Your task to perform on an android device: Add razer nari to the cart on costco.com Image 0: 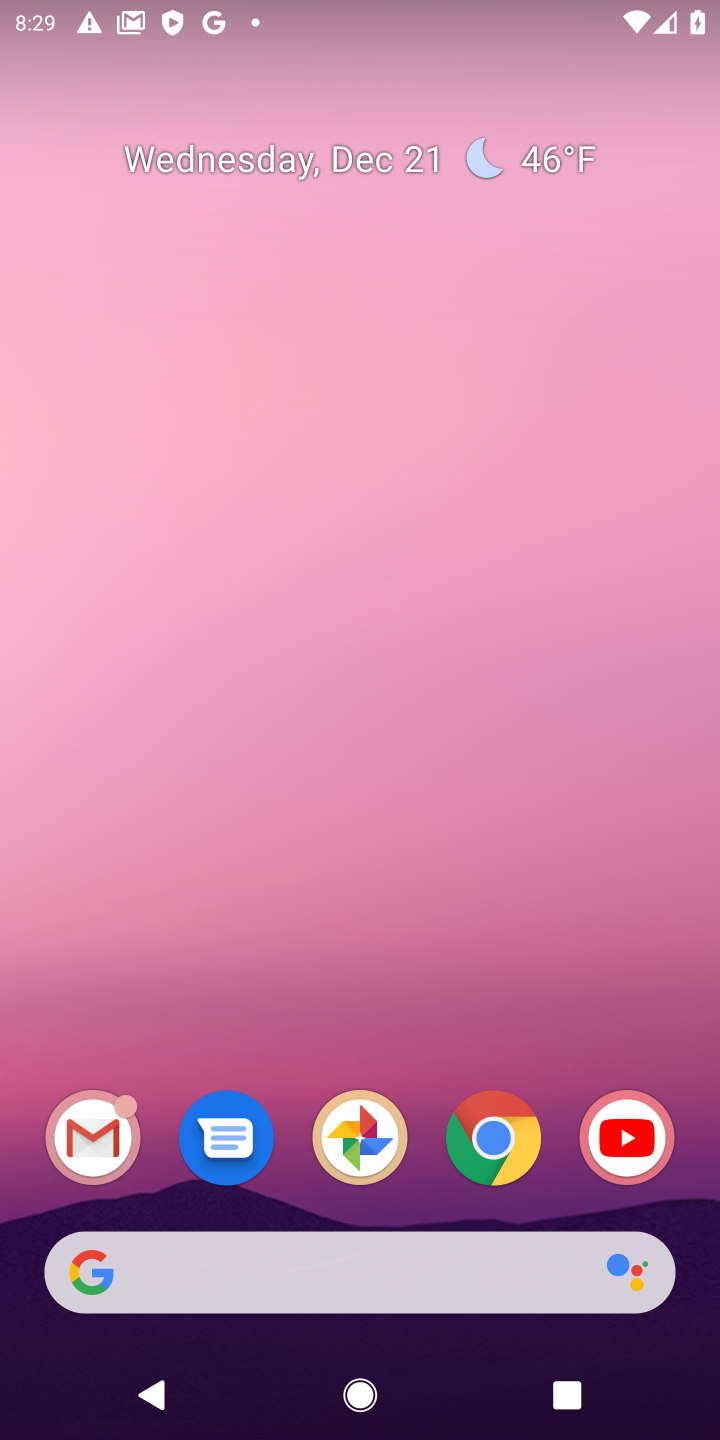
Step 0: click (492, 1138)
Your task to perform on an android device: Add razer nari to the cart on costco.com Image 1: 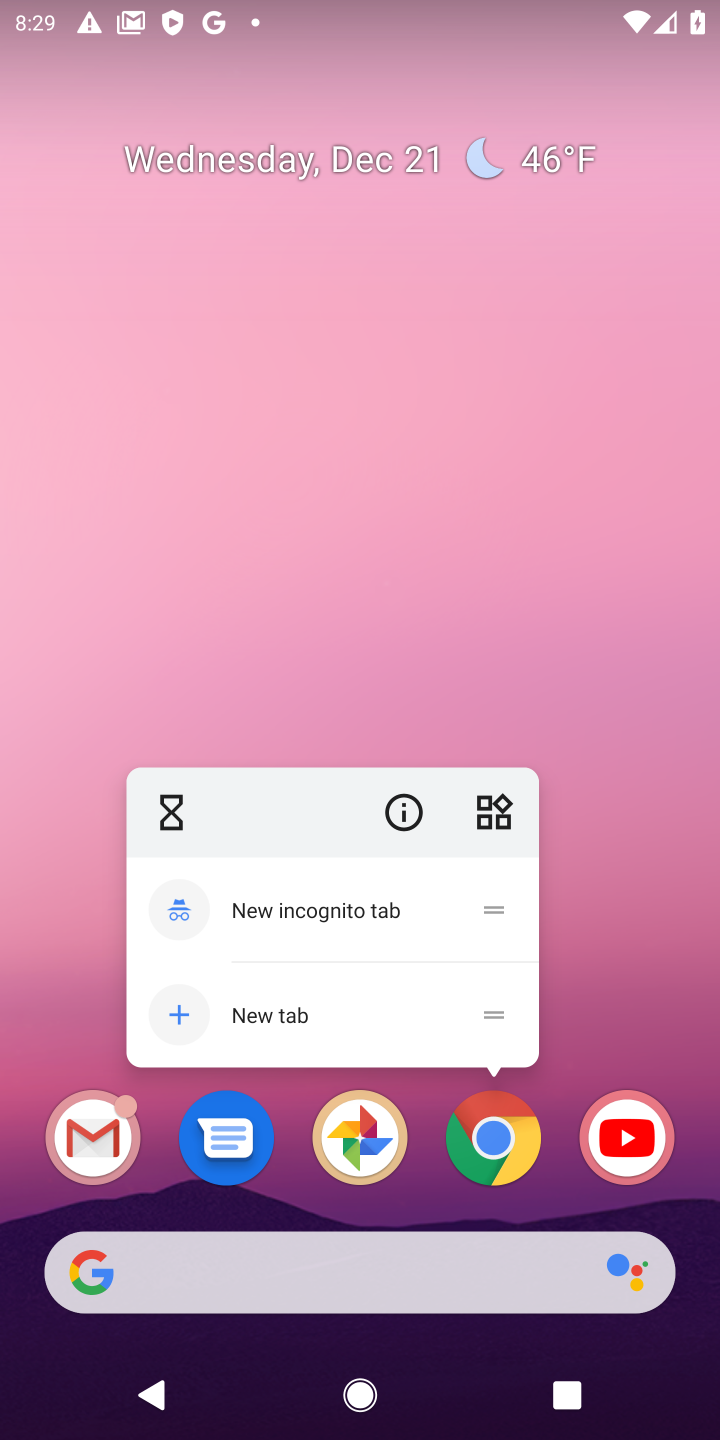
Step 1: click (492, 1138)
Your task to perform on an android device: Add razer nari to the cart on costco.com Image 2: 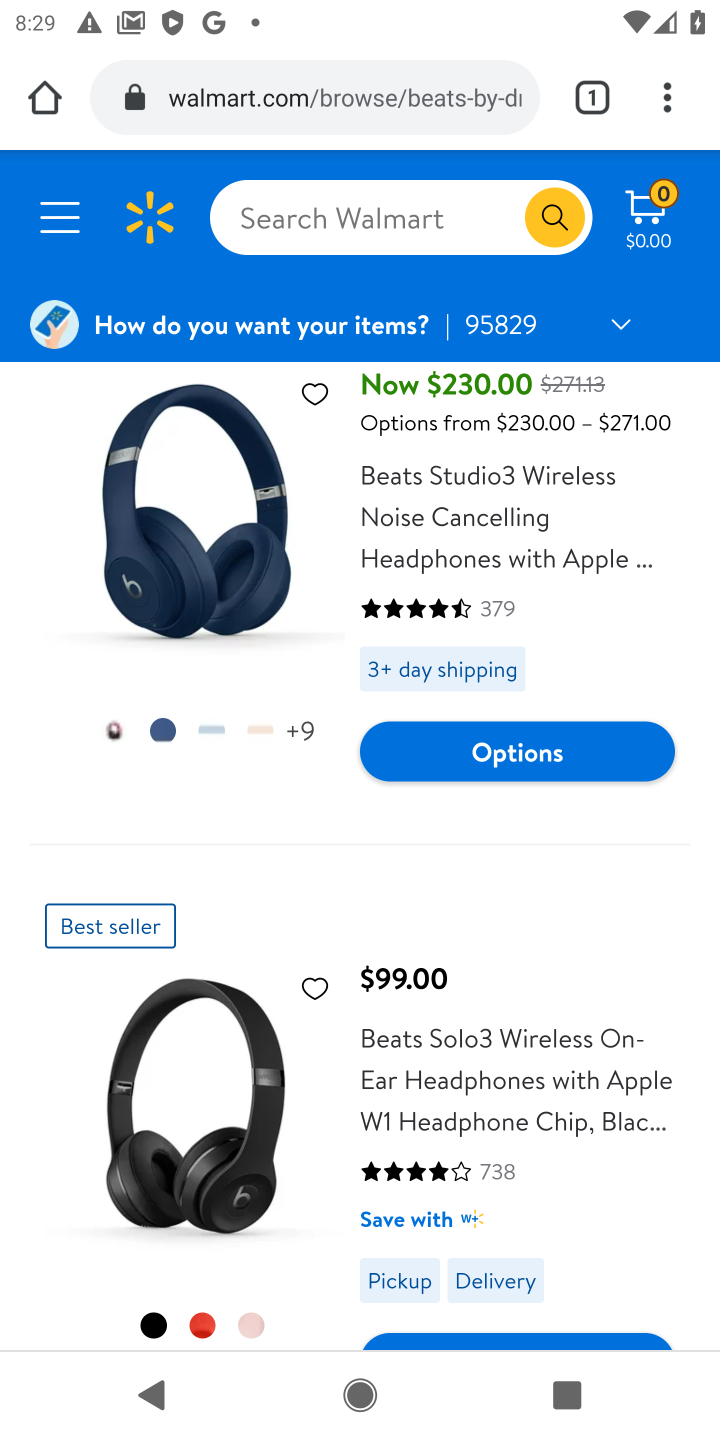
Step 2: click (290, 97)
Your task to perform on an android device: Add razer nari to the cart on costco.com Image 3: 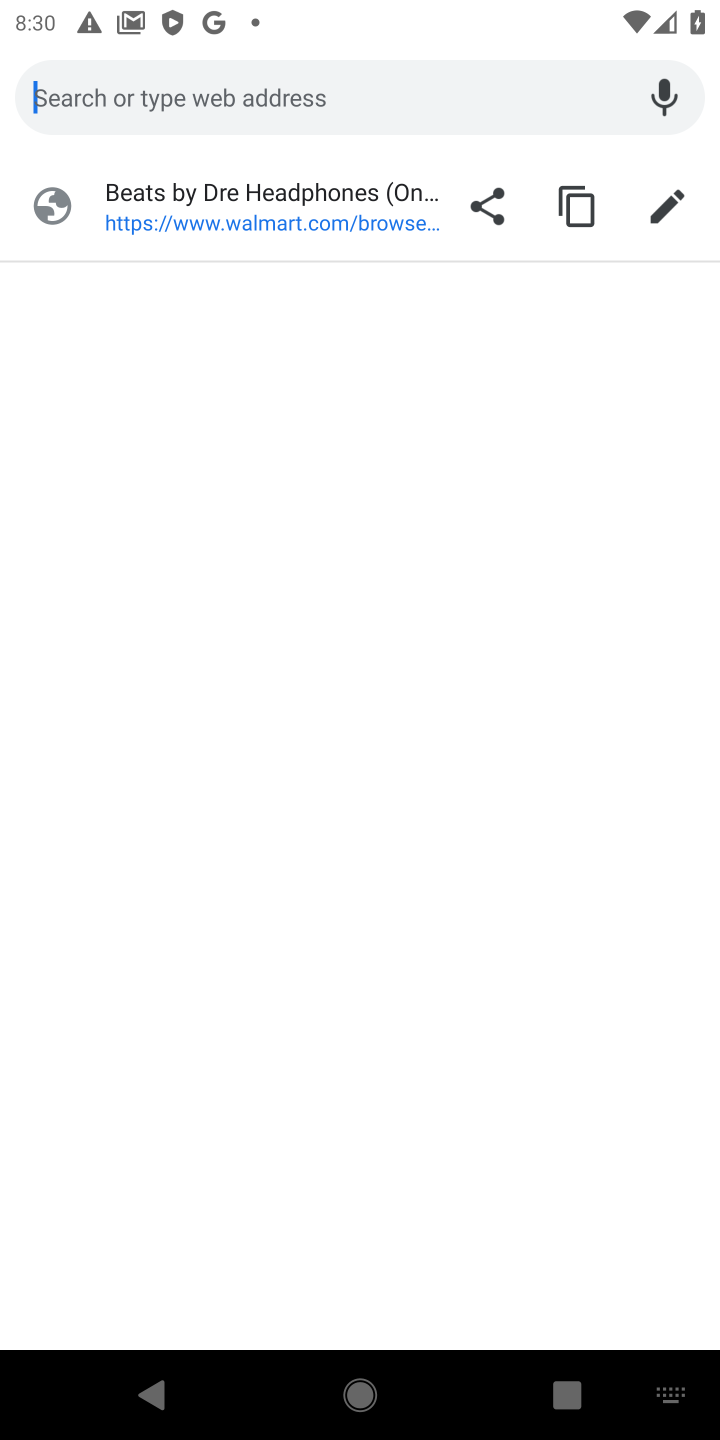
Step 3: type "costco.com"
Your task to perform on an android device: Add razer nari to the cart on costco.com Image 4: 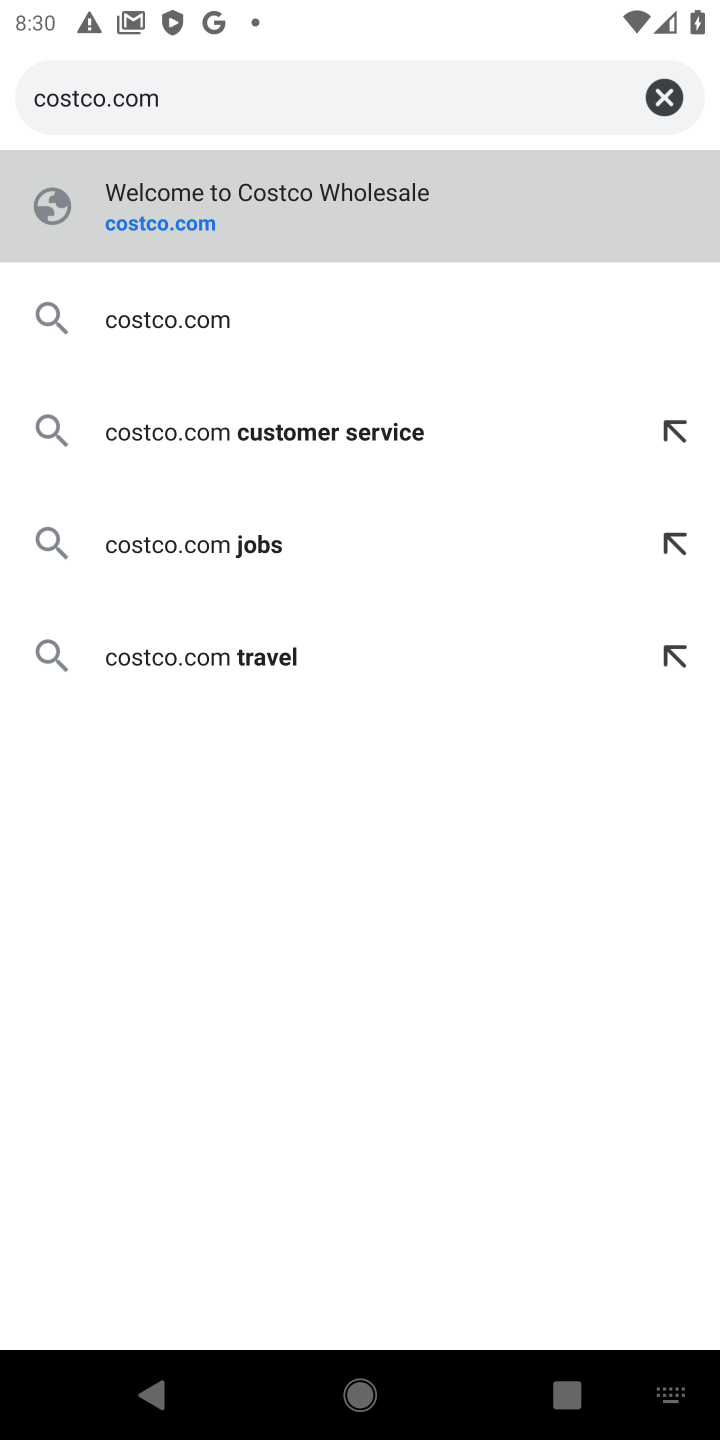
Step 4: click (146, 227)
Your task to perform on an android device: Add razer nari to the cart on costco.com Image 5: 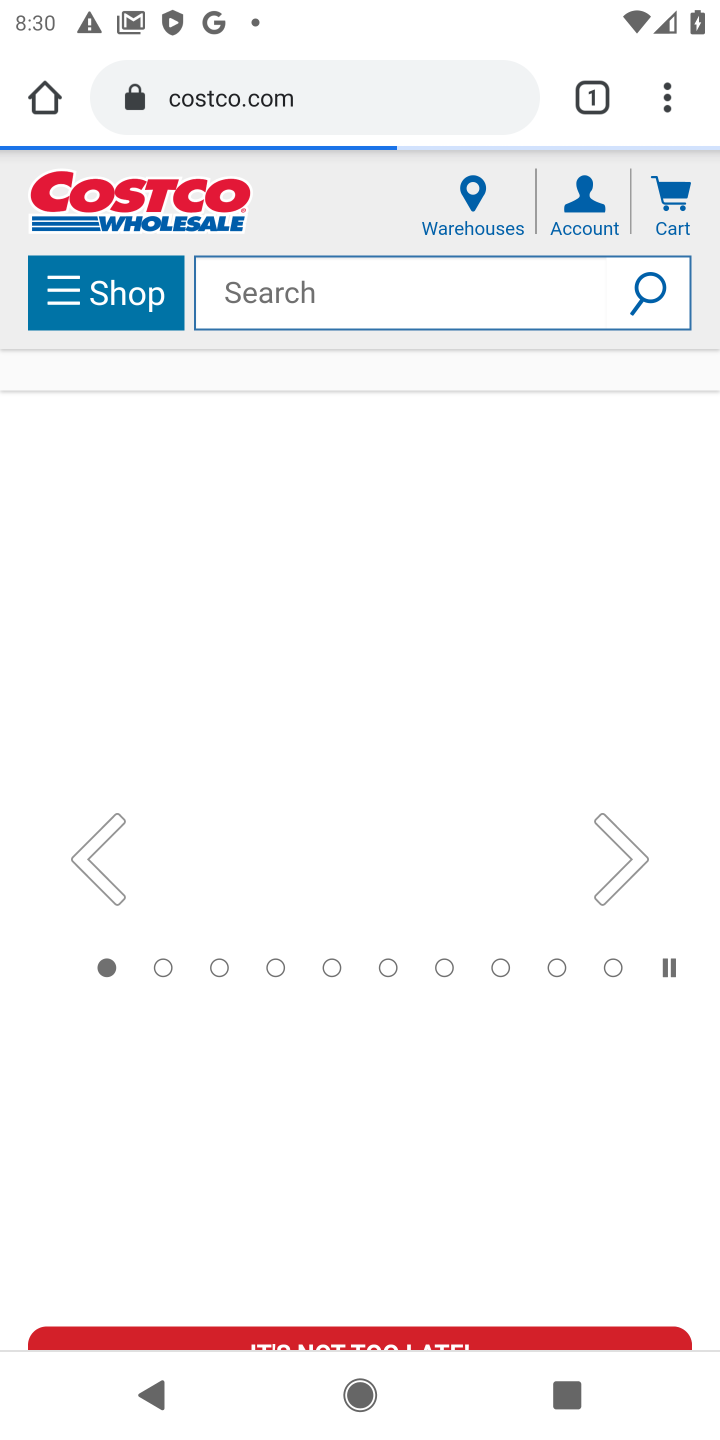
Step 5: click (285, 297)
Your task to perform on an android device: Add razer nari to the cart on costco.com Image 6: 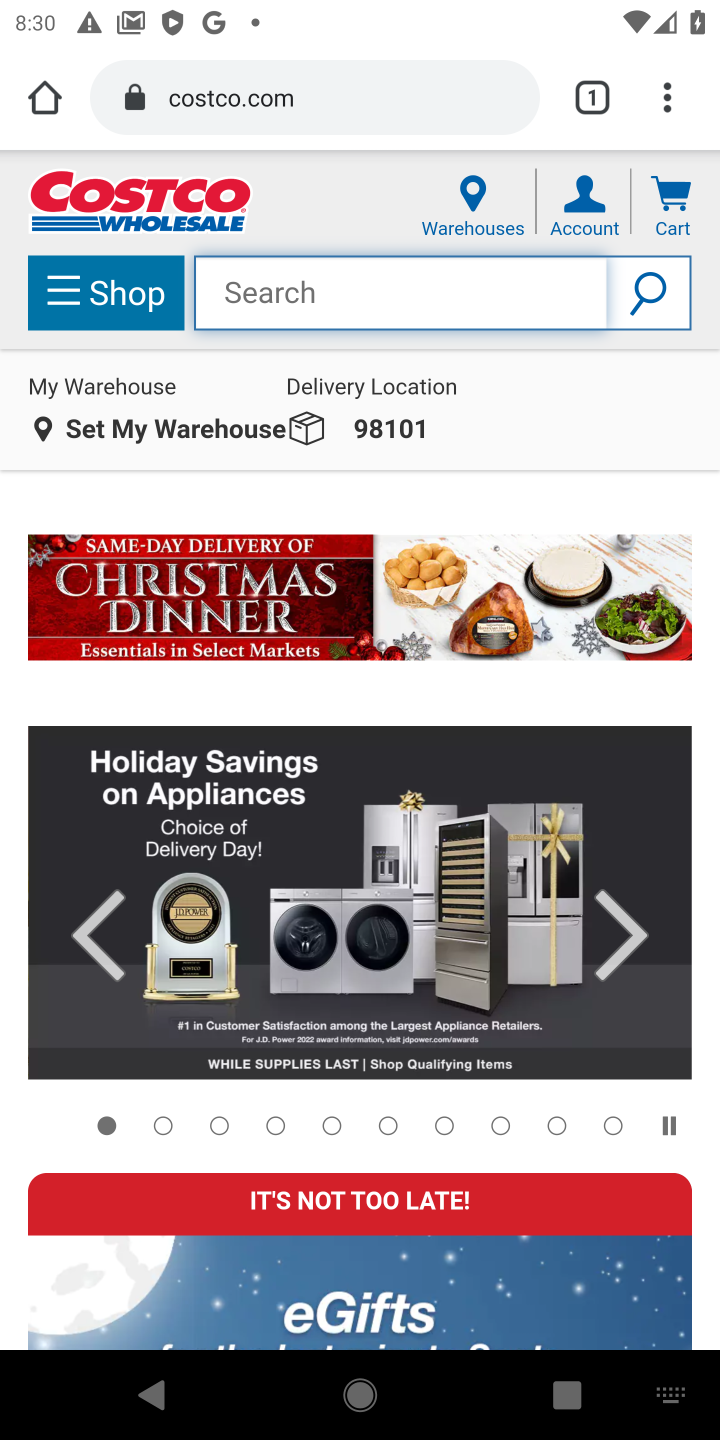
Step 6: type "razer nari "
Your task to perform on an android device: Add razer nari to the cart on costco.com Image 7: 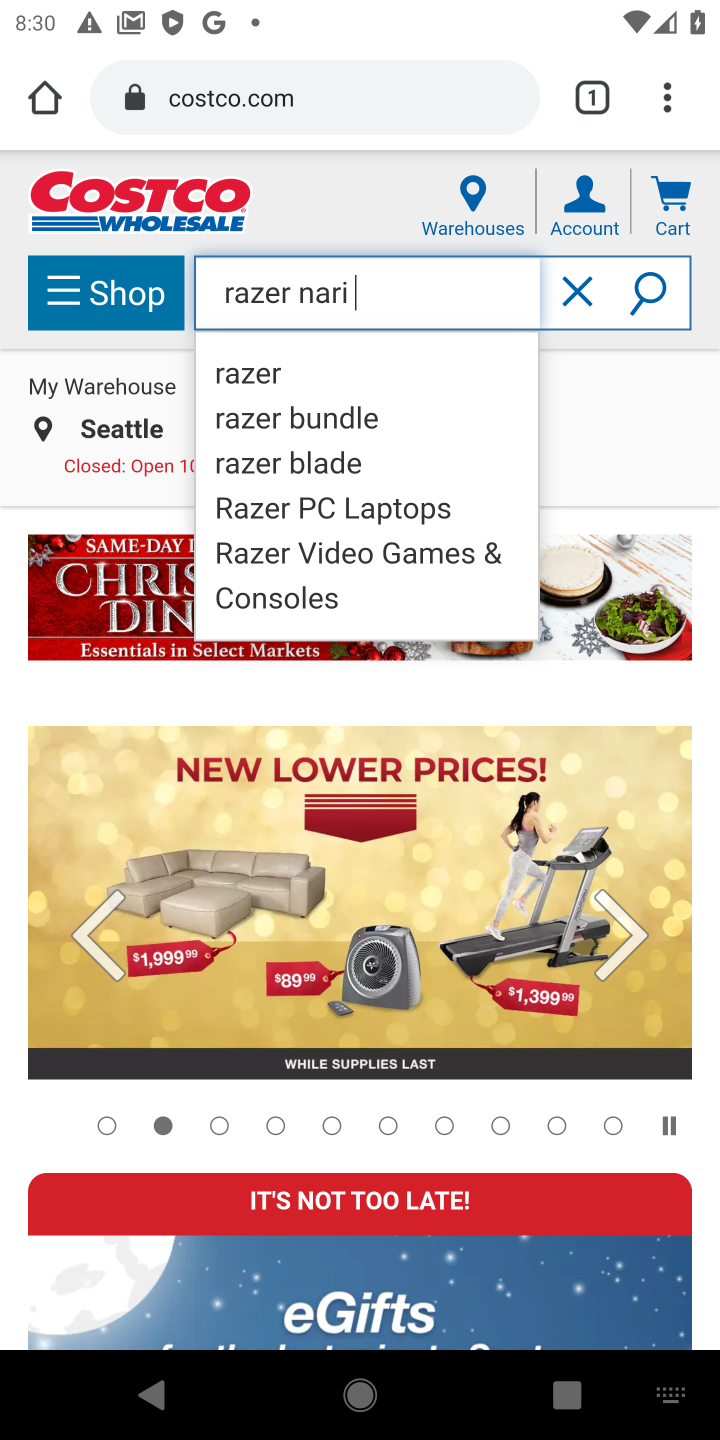
Step 7: click (650, 294)
Your task to perform on an android device: Add razer nari to the cart on costco.com Image 8: 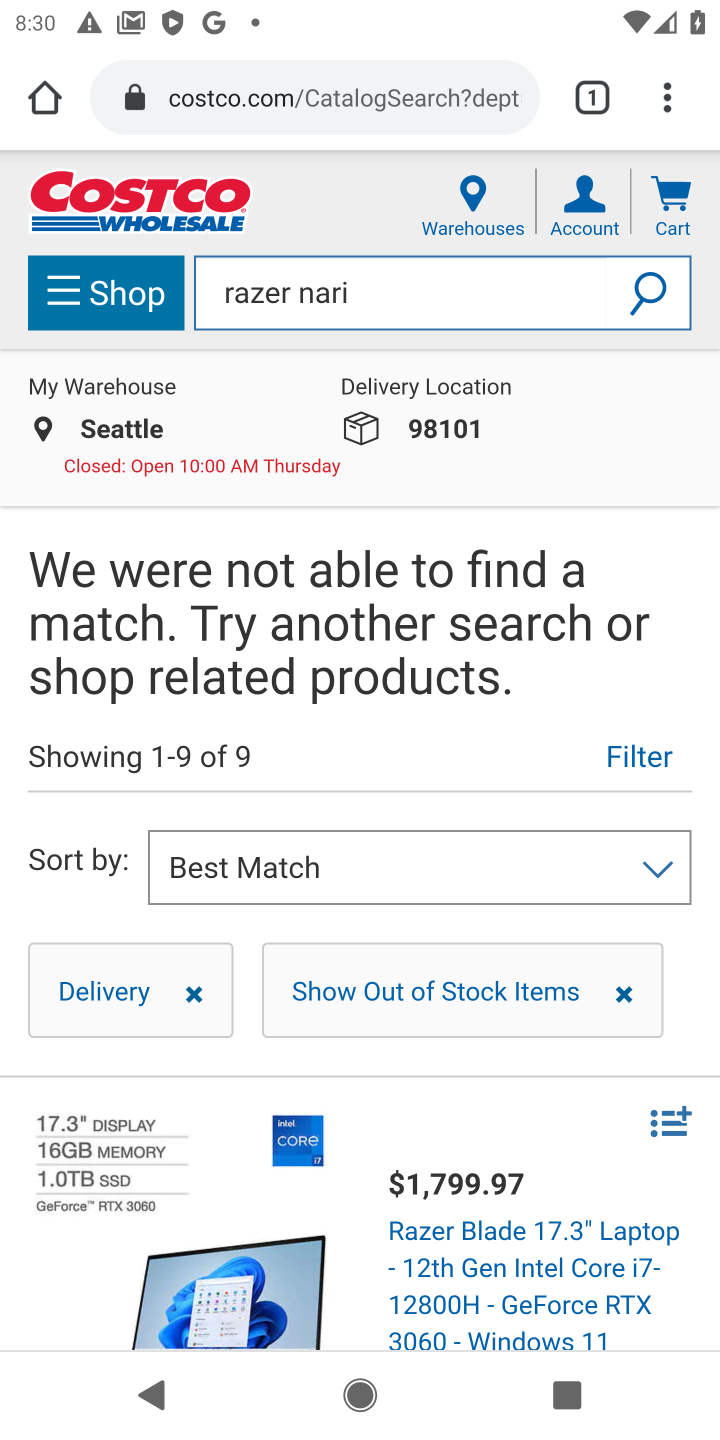
Step 8: task complete